Your task to perform on an android device: Go to eBay Image 0: 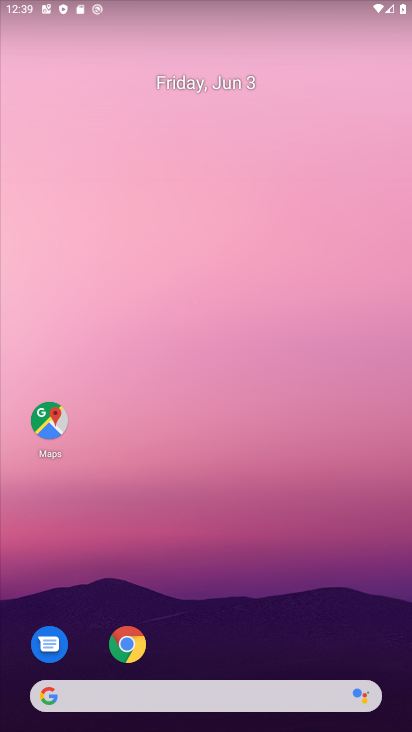
Step 0: click (125, 643)
Your task to perform on an android device: Go to eBay Image 1: 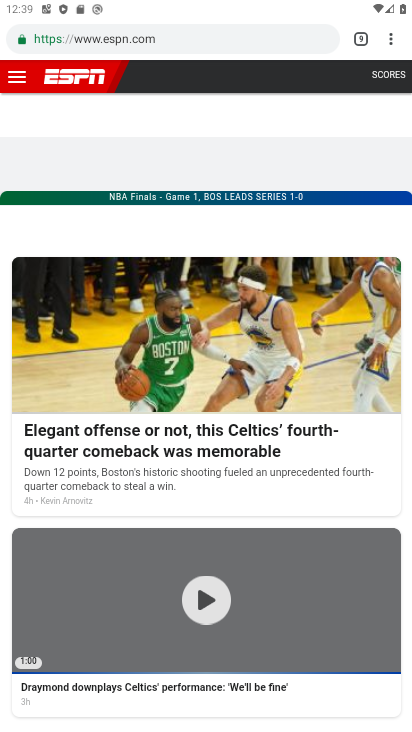
Step 1: click (395, 43)
Your task to perform on an android device: Go to eBay Image 2: 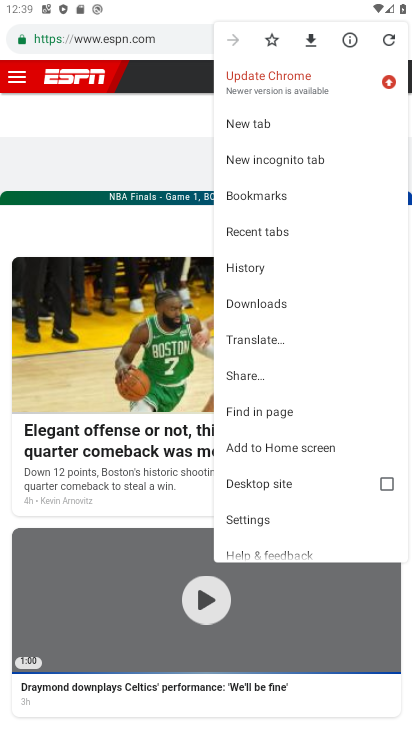
Step 2: click (265, 120)
Your task to perform on an android device: Go to eBay Image 3: 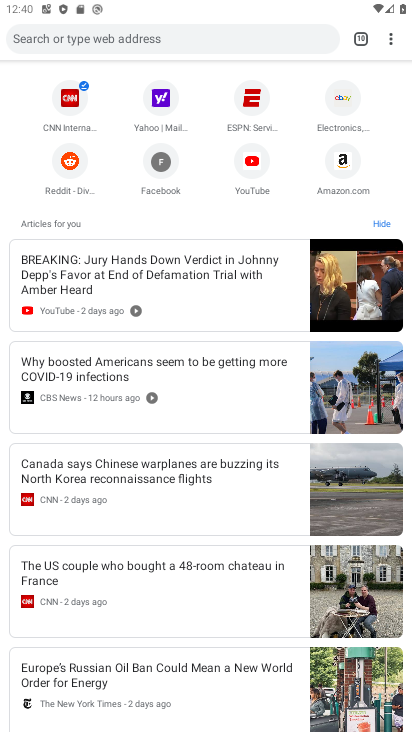
Step 3: click (173, 38)
Your task to perform on an android device: Go to eBay Image 4: 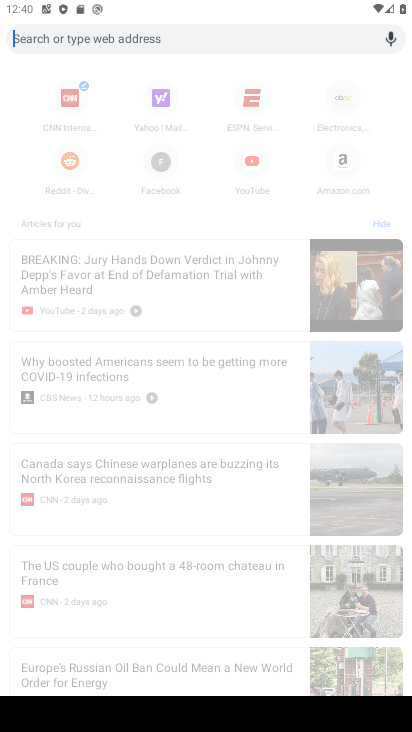
Step 4: type "eBay"
Your task to perform on an android device: Go to eBay Image 5: 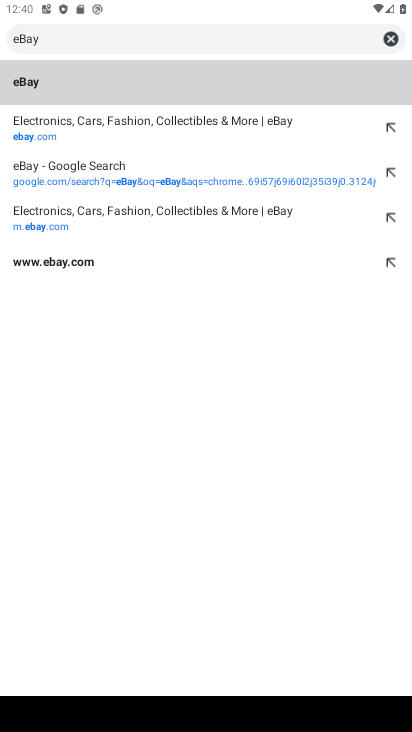
Step 5: click (87, 83)
Your task to perform on an android device: Go to eBay Image 6: 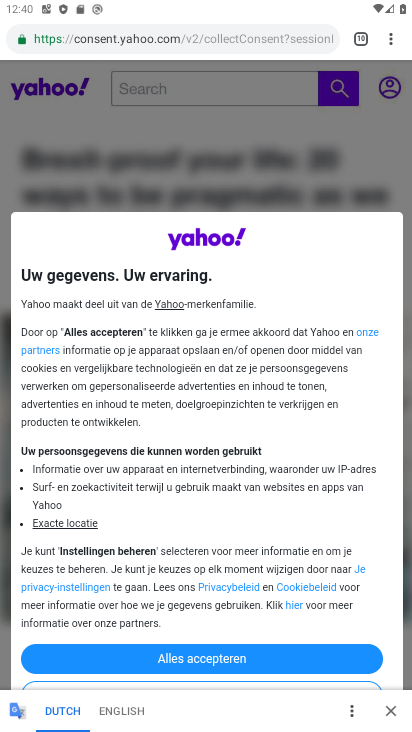
Step 6: click (236, 659)
Your task to perform on an android device: Go to eBay Image 7: 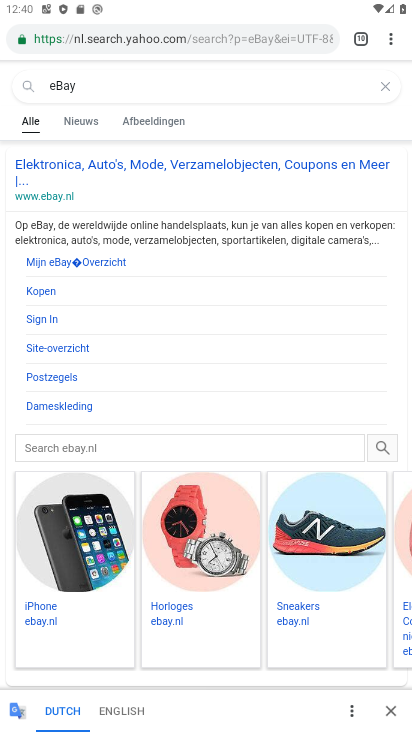
Step 7: click (63, 168)
Your task to perform on an android device: Go to eBay Image 8: 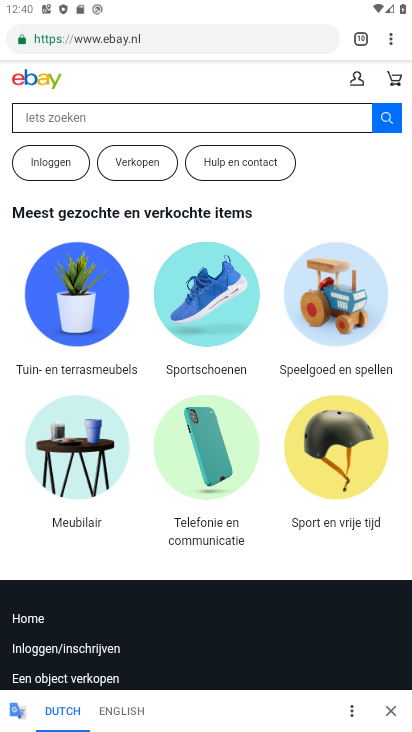
Step 8: task complete